Your task to perform on an android device: Go to wifi settings Image 0: 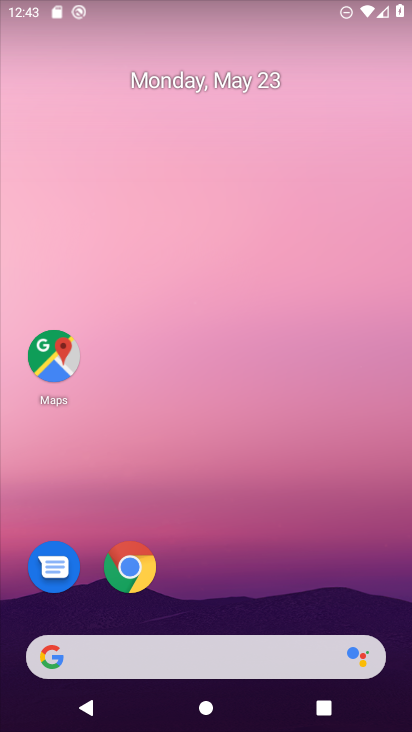
Step 0: drag from (112, 14) to (186, 680)
Your task to perform on an android device: Go to wifi settings Image 1: 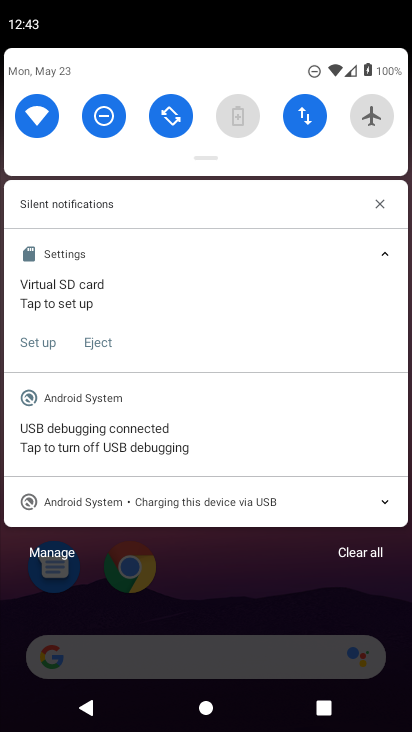
Step 1: click (30, 135)
Your task to perform on an android device: Go to wifi settings Image 2: 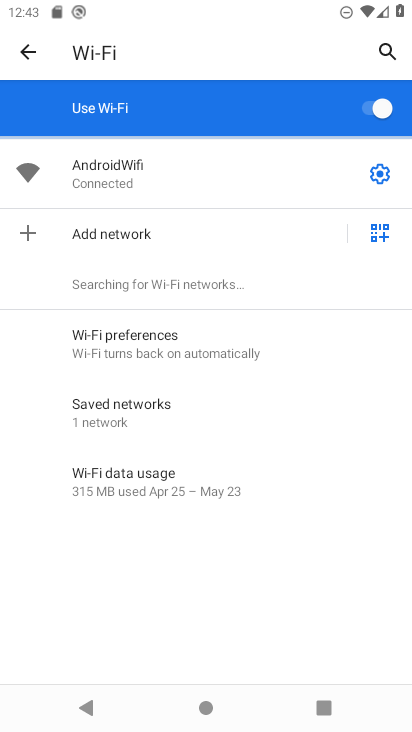
Step 2: task complete